Your task to perform on an android device: change the clock display to digital Image 0: 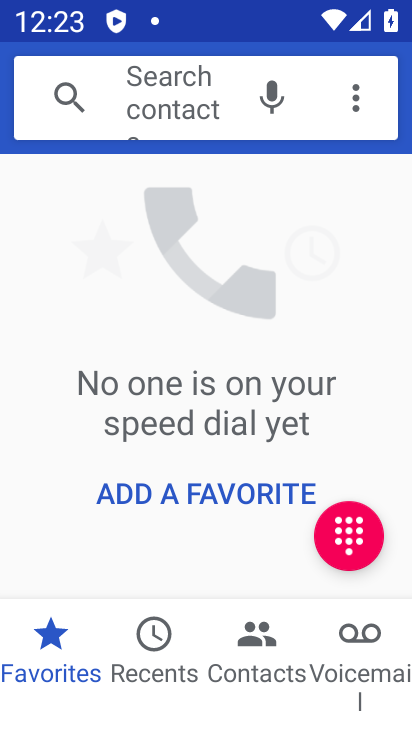
Step 0: press home button
Your task to perform on an android device: change the clock display to digital Image 1: 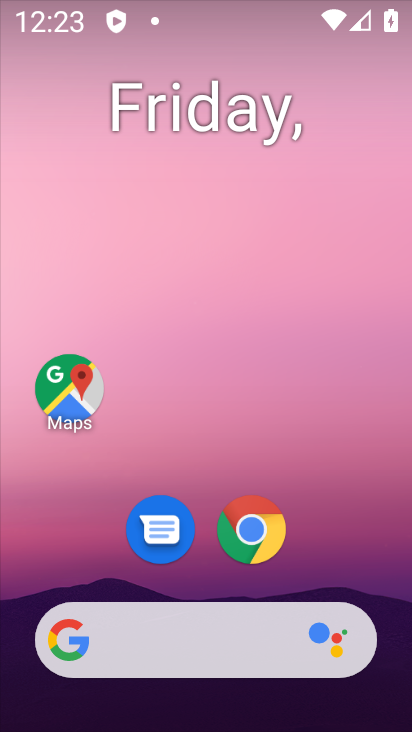
Step 1: drag from (199, 603) to (199, 185)
Your task to perform on an android device: change the clock display to digital Image 2: 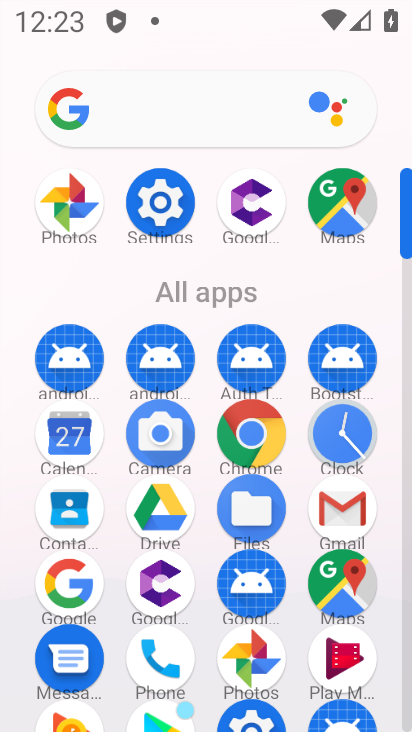
Step 2: click (344, 431)
Your task to perform on an android device: change the clock display to digital Image 3: 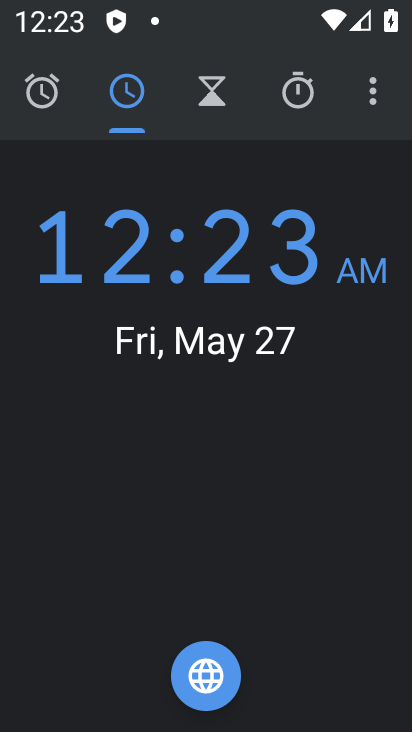
Step 3: click (376, 84)
Your task to perform on an android device: change the clock display to digital Image 4: 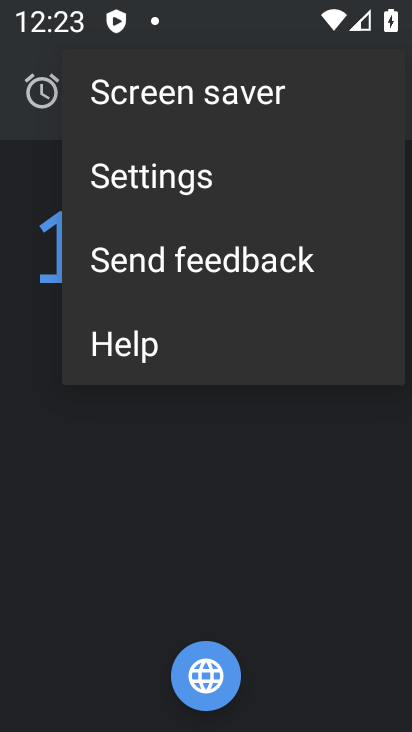
Step 4: click (184, 184)
Your task to perform on an android device: change the clock display to digital Image 5: 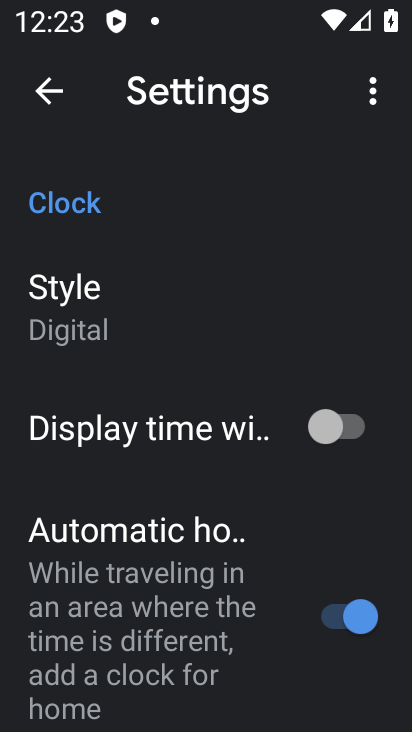
Step 5: task complete